Your task to perform on an android device: Open settings on Google Maps Image 0: 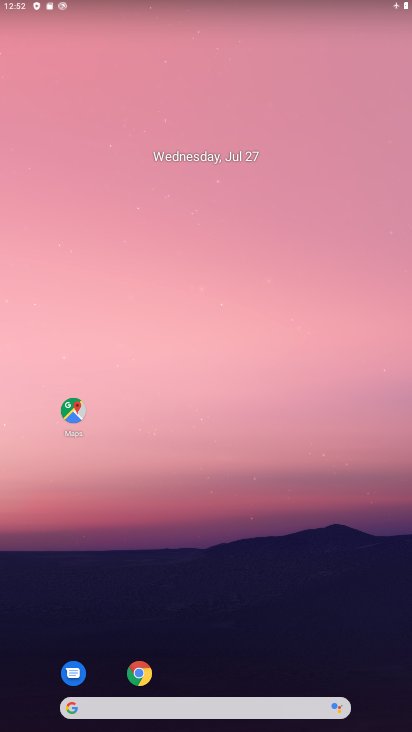
Step 0: click (68, 405)
Your task to perform on an android device: Open settings on Google Maps Image 1: 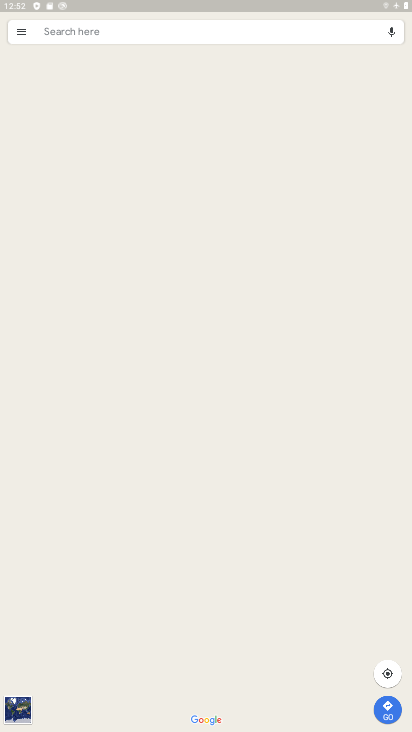
Step 1: click (16, 28)
Your task to perform on an android device: Open settings on Google Maps Image 2: 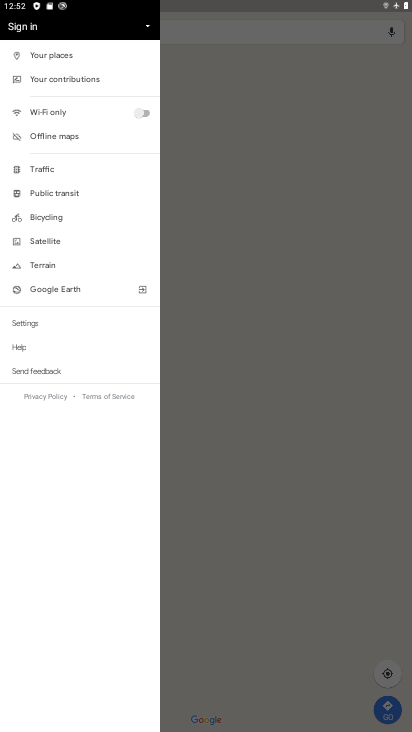
Step 2: click (55, 322)
Your task to perform on an android device: Open settings on Google Maps Image 3: 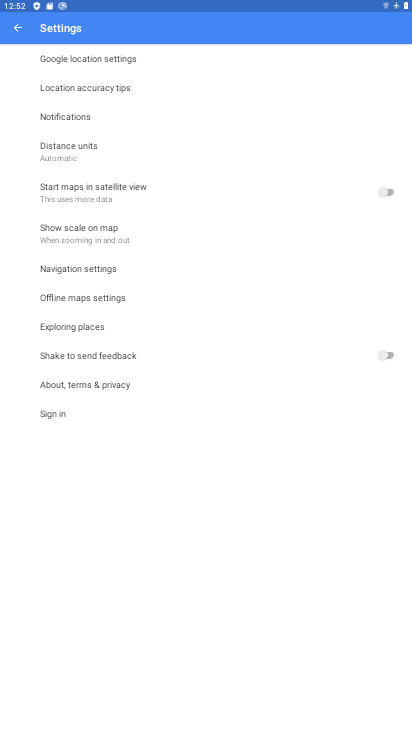
Step 3: task complete